Your task to perform on an android device: See recent photos Image 0: 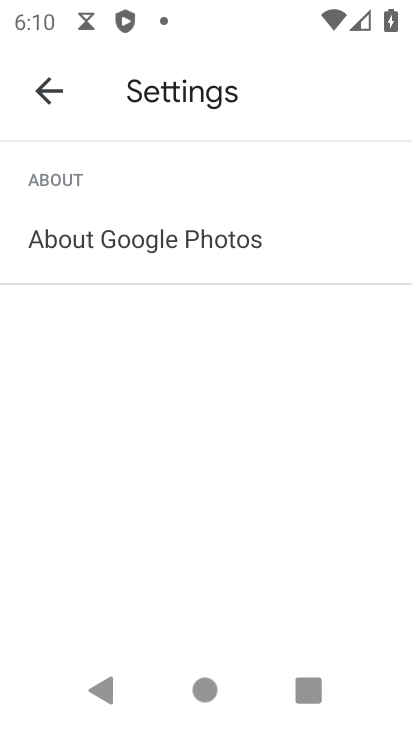
Step 0: press home button
Your task to perform on an android device: See recent photos Image 1: 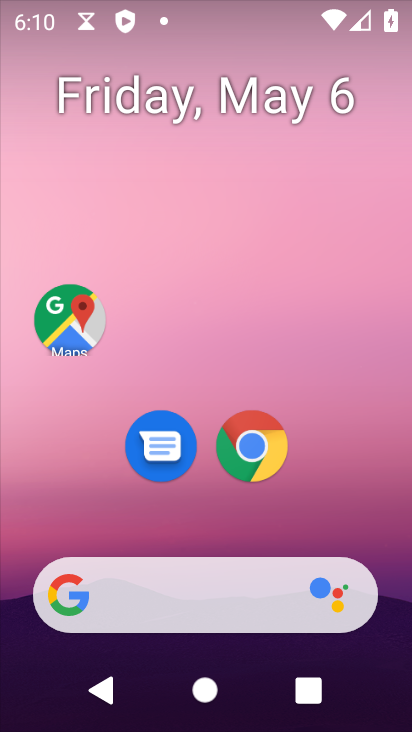
Step 1: drag from (339, 514) to (313, 205)
Your task to perform on an android device: See recent photos Image 2: 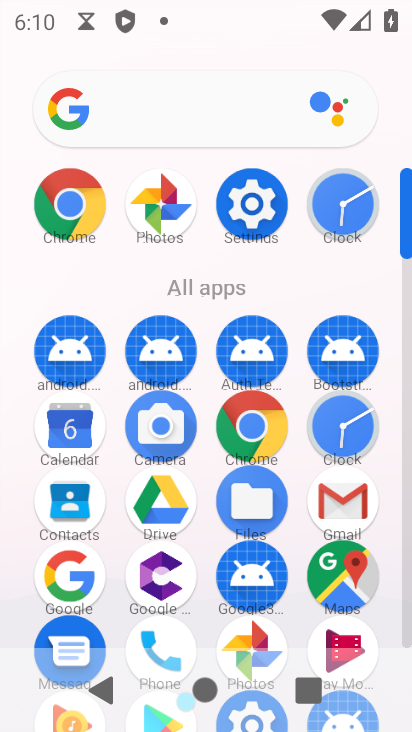
Step 2: click (167, 203)
Your task to perform on an android device: See recent photos Image 3: 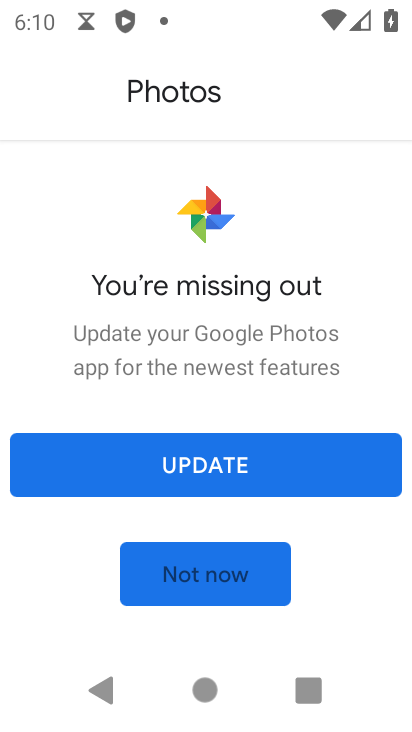
Step 3: click (254, 486)
Your task to perform on an android device: See recent photos Image 4: 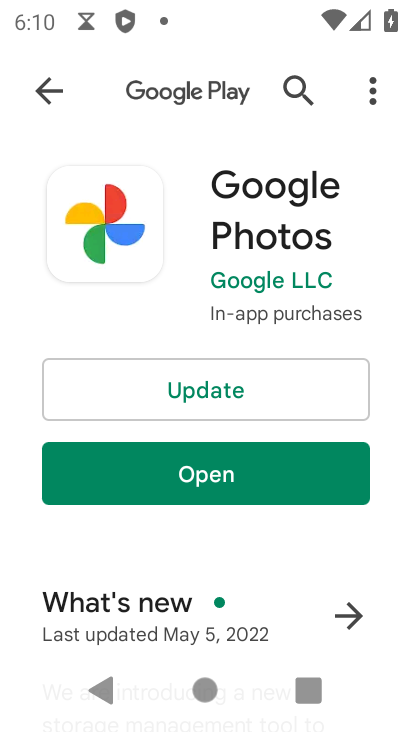
Step 4: click (177, 384)
Your task to perform on an android device: See recent photos Image 5: 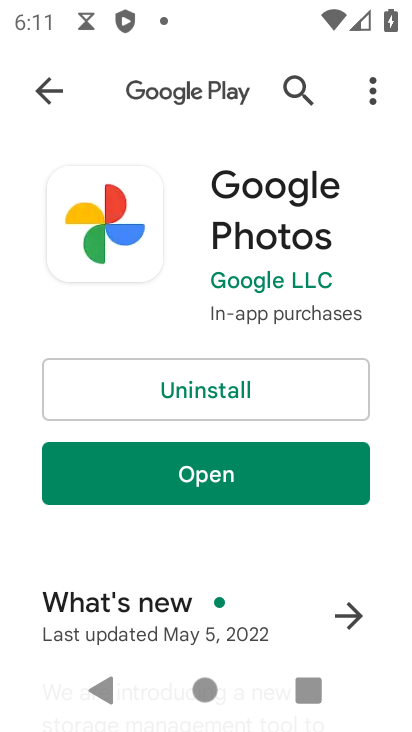
Step 5: click (205, 491)
Your task to perform on an android device: See recent photos Image 6: 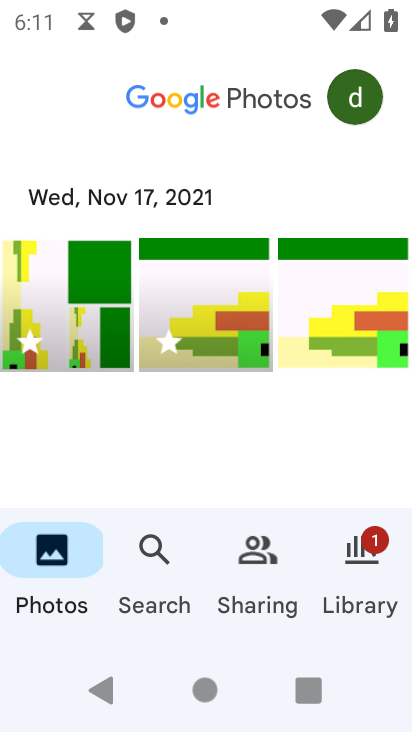
Step 6: click (378, 577)
Your task to perform on an android device: See recent photos Image 7: 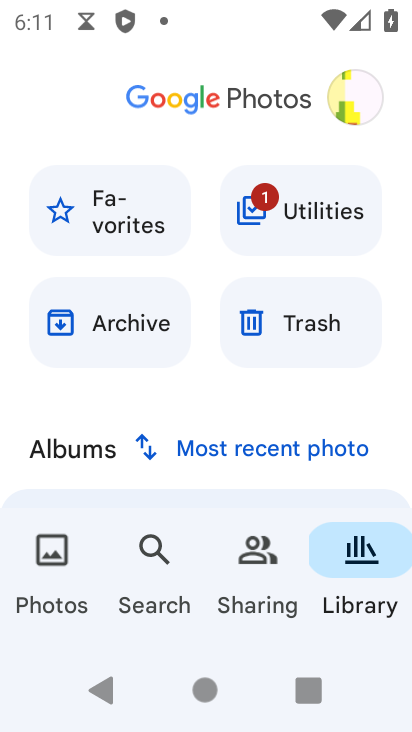
Step 7: click (263, 395)
Your task to perform on an android device: See recent photos Image 8: 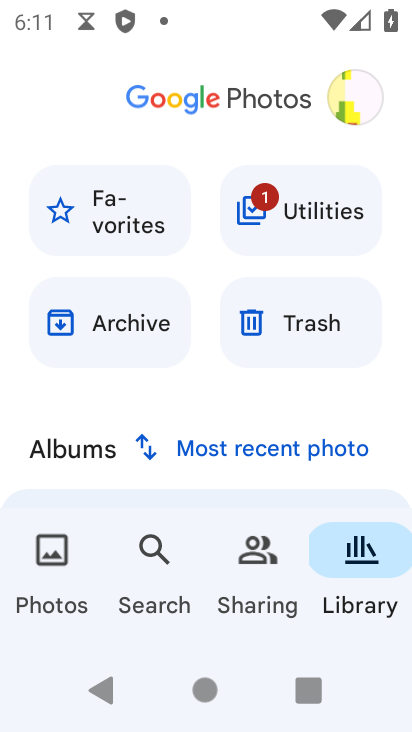
Step 8: click (275, 436)
Your task to perform on an android device: See recent photos Image 9: 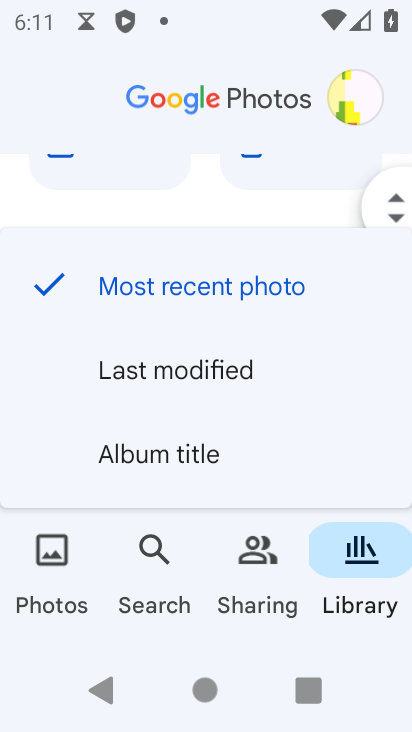
Step 9: click (215, 286)
Your task to perform on an android device: See recent photos Image 10: 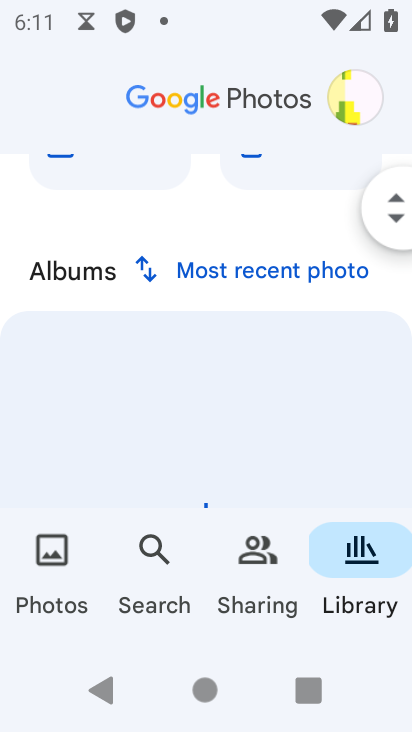
Step 10: drag from (285, 428) to (279, 293)
Your task to perform on an android device: See recent photos Image 11: 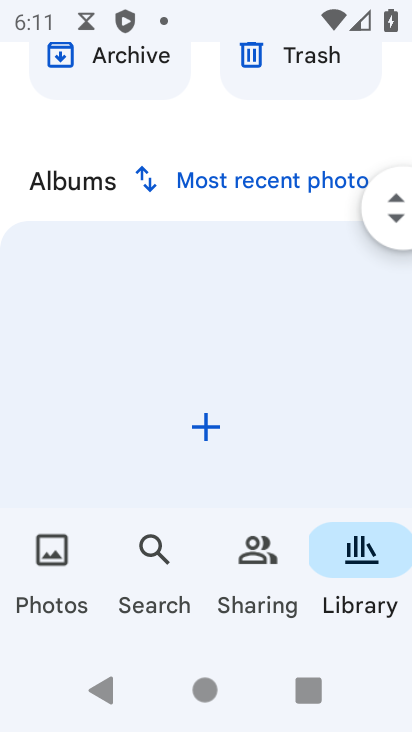
Step 11: click (216, 178)
Your task to perform on an android device: See recent photos Image 12: 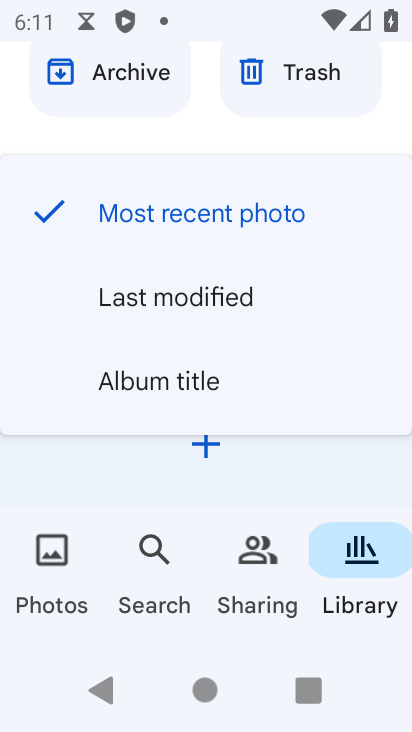
Step 12: click (188, 216)
Your task to perform on an android device: See recent photos Image 13: 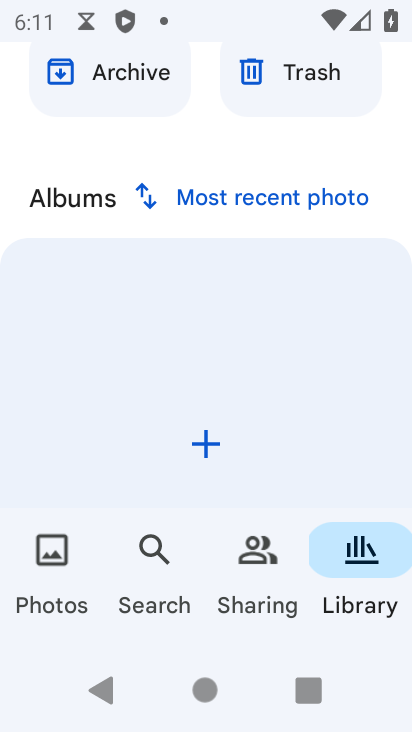
Step 13: task complete